Your task to perform on an android device: Open settings Image 0: 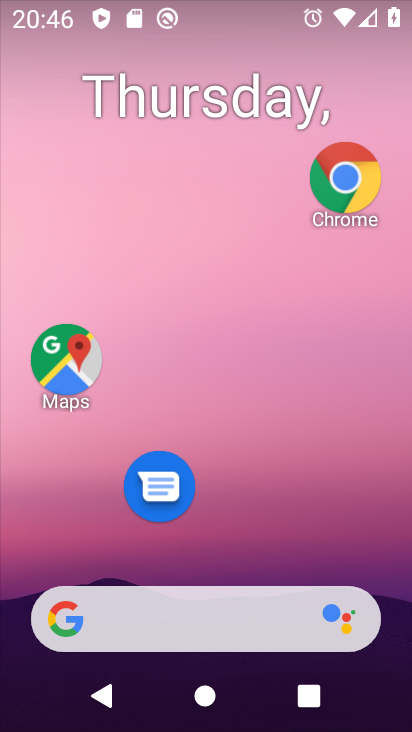
Step 0: drag from (248, 580) to (140, 92)
Your task to perform on an android device: Open settings Image 1: 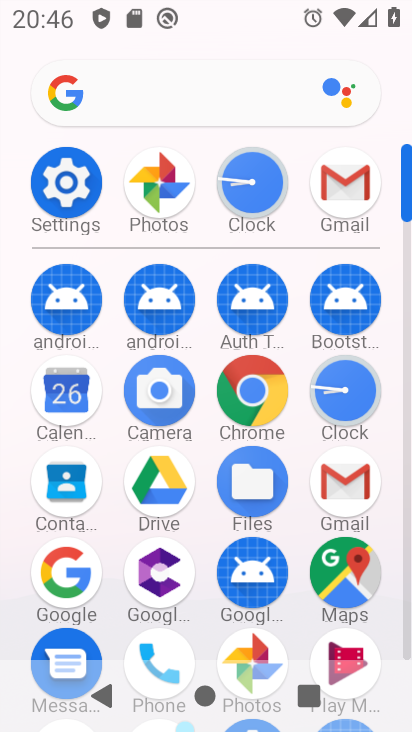
Step 1: click (58, 208)
Your task to perform on an android device: Open settings Image 2: 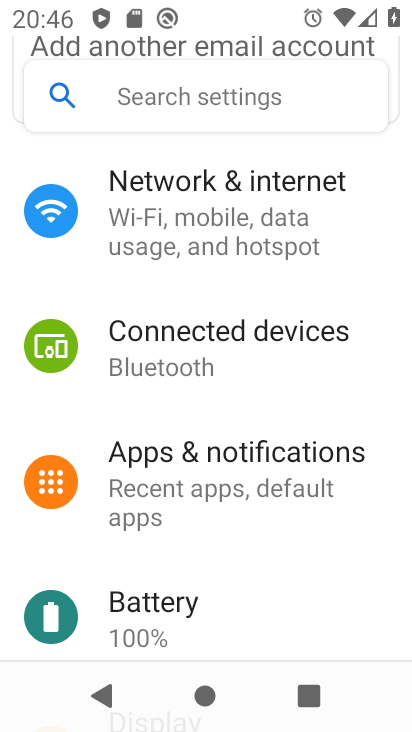
Step 2: task complete